Your task to perform on an android device: choose inbox layout in the gmail app Image 0: 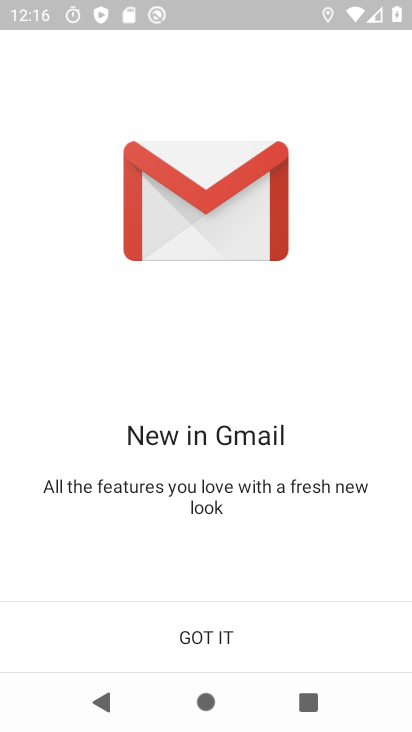
Step 0: press home button
Your task to perform on an android device: choose inbox layout in the gmail app Image 1: 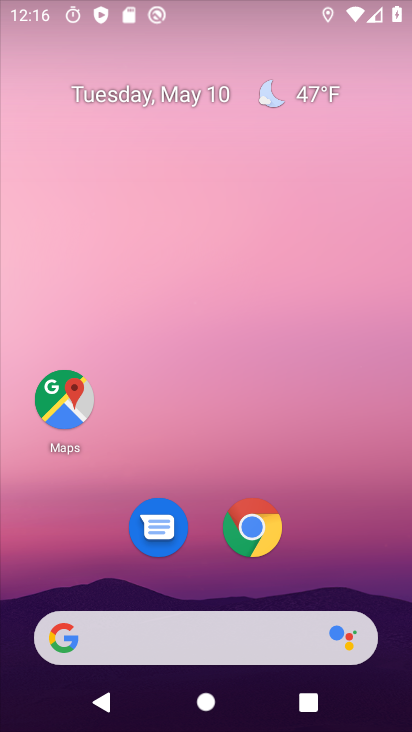
Step 1: drag from (338, 564) to (265, 182)
Your task to perform on an android device: choose inbox layout in the gmail app Image 2: 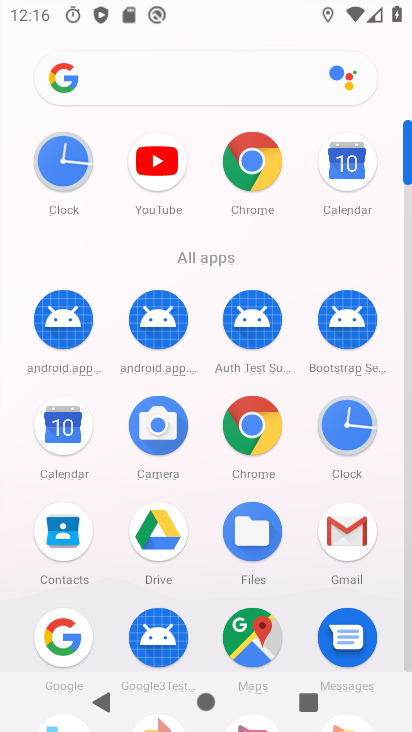
Step 2: click (334, 526)
Your task to perform on an android device: choose inbox layout in the gmail app Image 3: 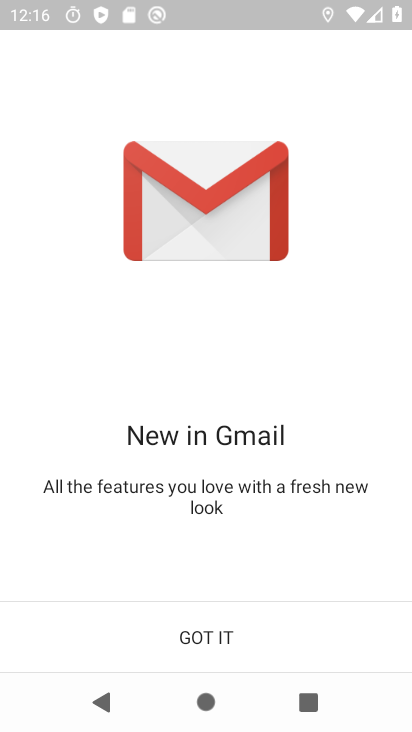
Step 3: click (214, 650)
Your task to perform on an android device: choose inbox layout in the gmail app Image 4: 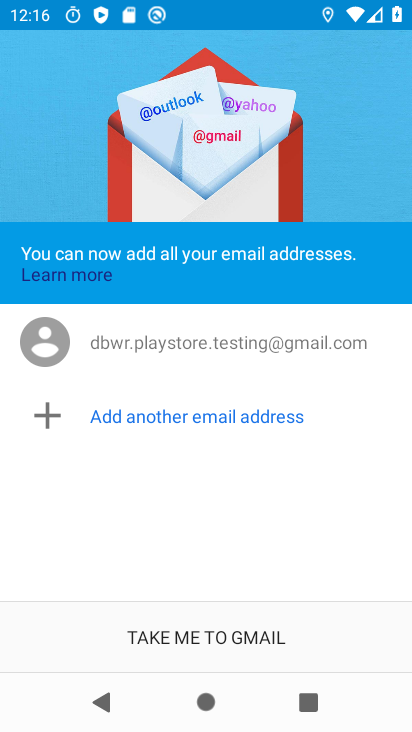
Step 4: click (222, 640)
Your task to perform on an android device: choose inbox layout in the gmail app Image 5: 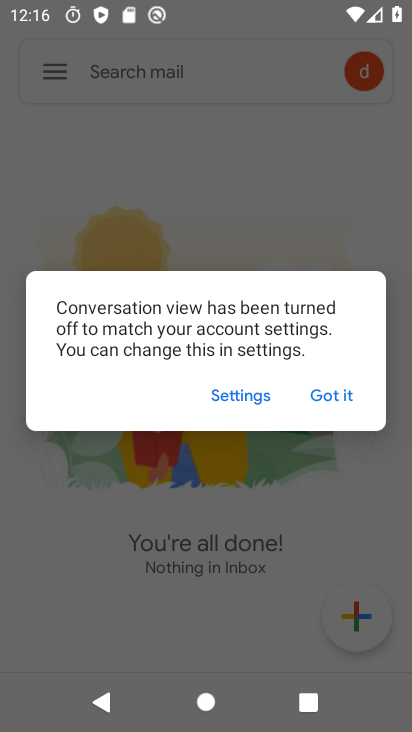
Step 5: click (333, 396)
Your task to perform on an android device: choose inbox layout in the gmail app Image 6: 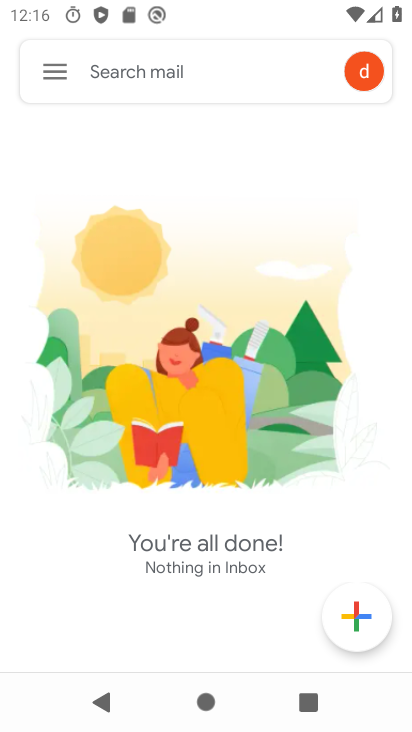
Step 6: click (57, 74)
Your task to perform on an android device: choose inbox layout in the gmail app Image 7: 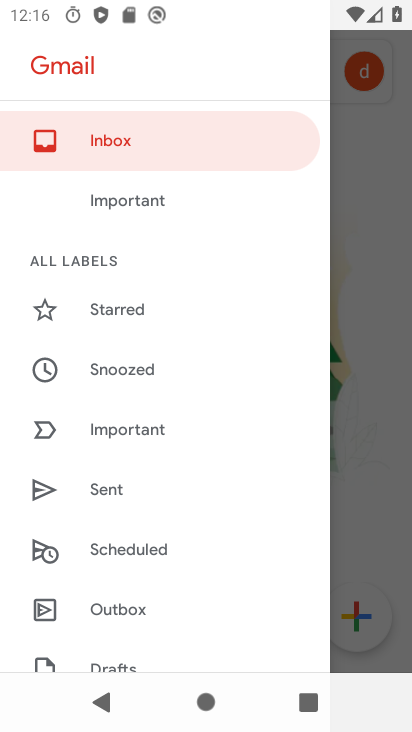
Step 7: drag from (202, 656) to (204, 294)
Your task to perform on an android device: choose inbox layout in the gmail app Image 8: 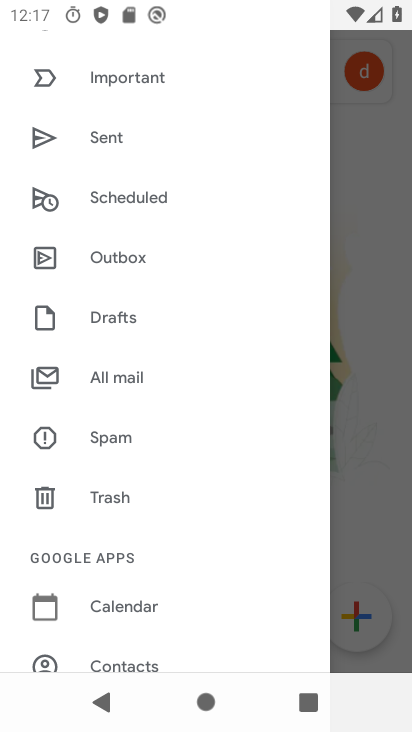
Step 8: drag from (203, 587) to (190, 259)
Your task to perform on an android device: choose inbox layout in the gmail app Image 9: 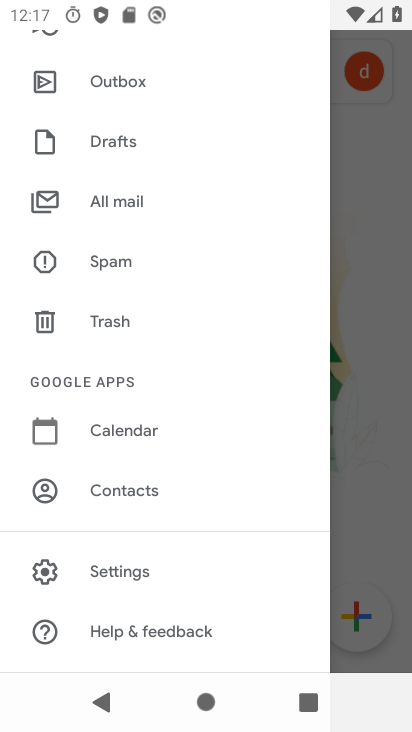
Step 9: click (146, 578)
Your task to perform on an android device: choose inbox layout in the gmail app Image 10: 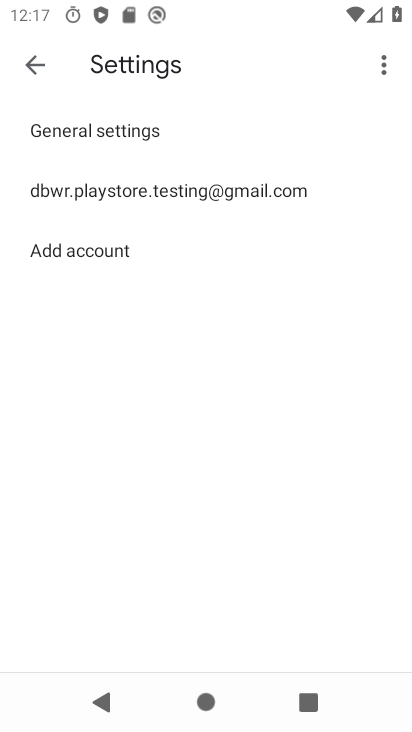
Step 10: click (263, 179)
Your task to perform on an android device: choose inbox layout in the gmail app Image 11: 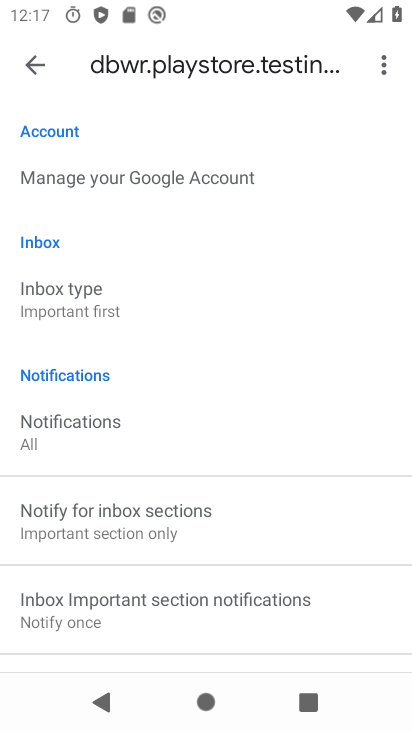
Step 11: click (109, 304)
Your task to perform on an android device: choose inbox layout in the gmail app Image 12: 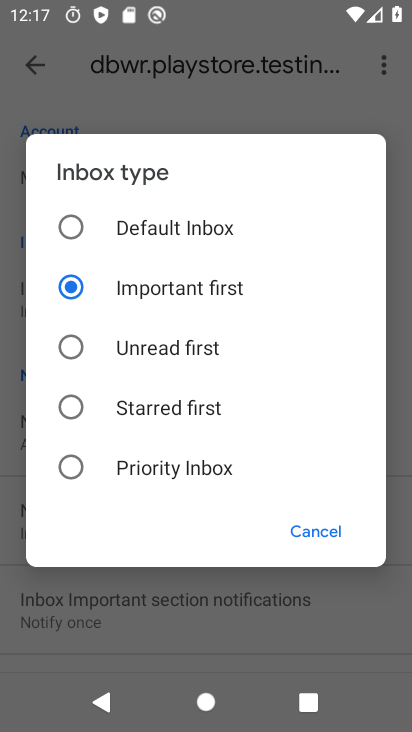
Step 12: click (68, 219)
Your task to perform on an android device: choose inbox layout in the gmail app Image 13: 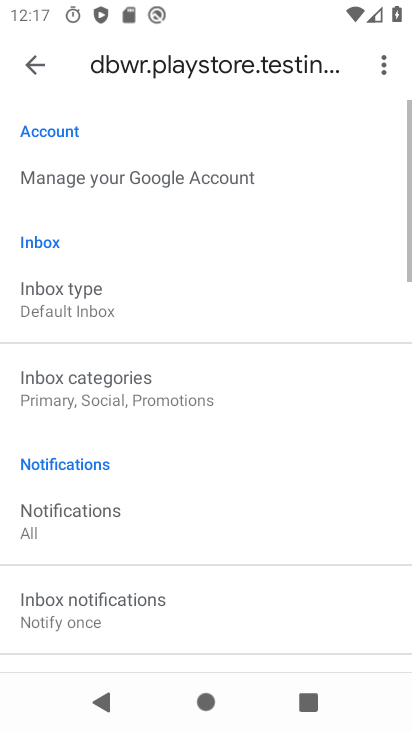
Step 13: task complete